Your task to perform on an android device: set an alarm Image 0: 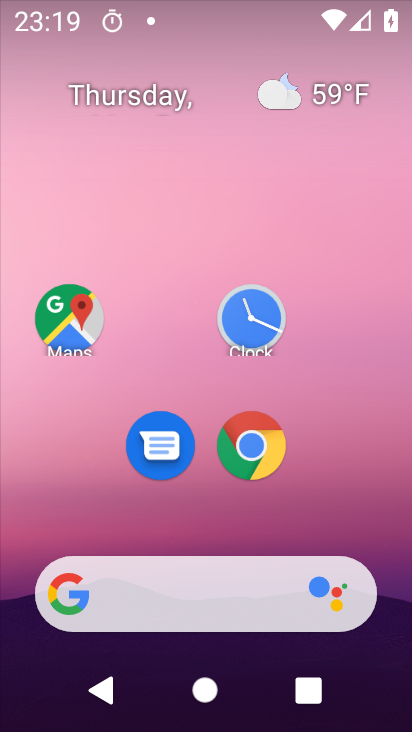
Step 0: click (245, 329)
Your task to perform on an android device: set an alarm Image 1: 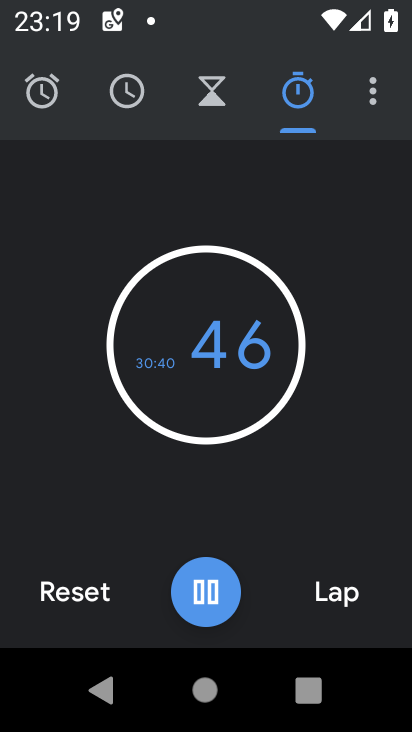
Step 1: click (46, 118)
Your task to perform on an android device: set an alarm Image 2: 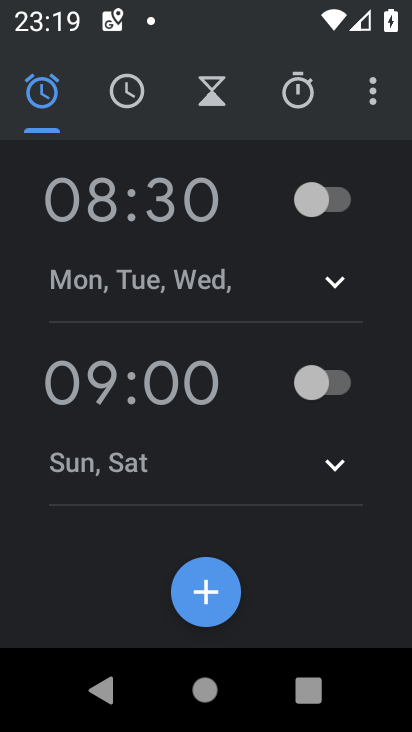
Step 2: click (230, 582)
Your task to perform on an android device: set an alarm Image 3: 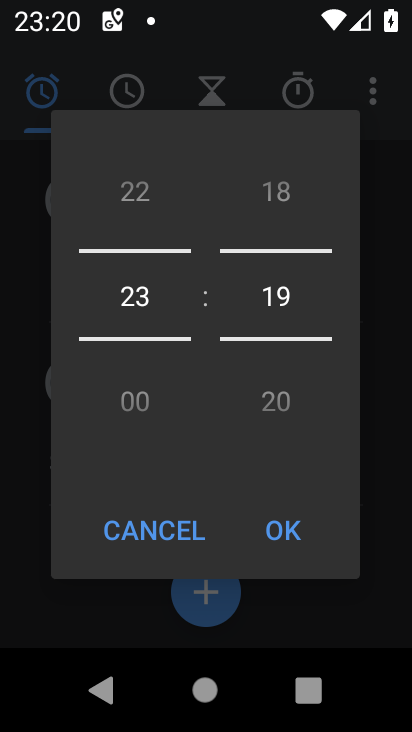
Step 3: drag from (137, 393) to (94, 33)
Your task to perform on an android device: set an alarm Image 4: 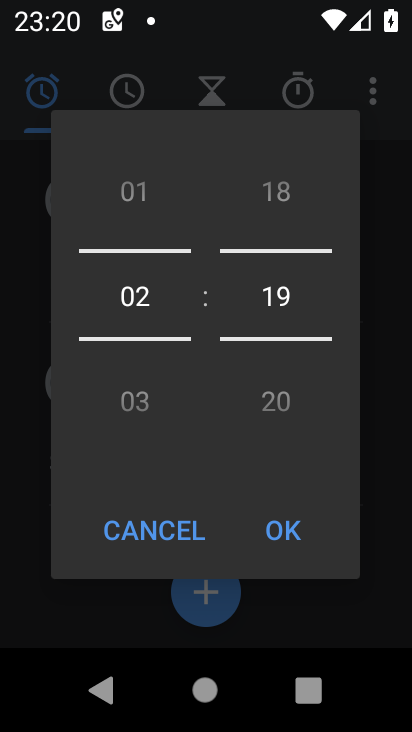
Step 4: click (289, 518)
Your task to perform on an android device: set an alarm Image 5: 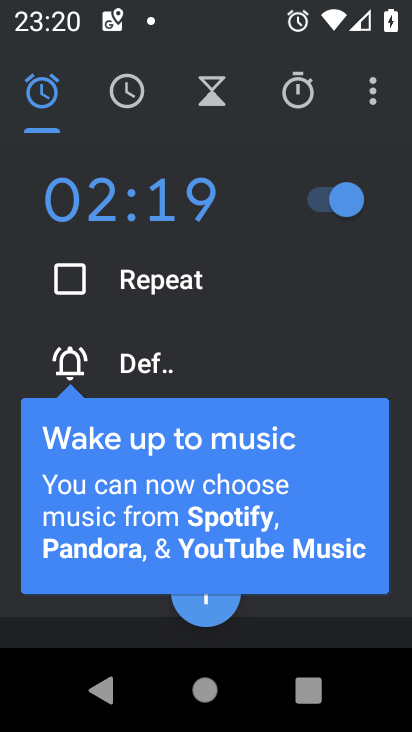
Step 5: task complete